Your task to perform on an android device: Clear all items from cart on target.com. Search for jbl charge 4 on target.com, select the first entry, add it to the cart, then select checkout. Image 0: 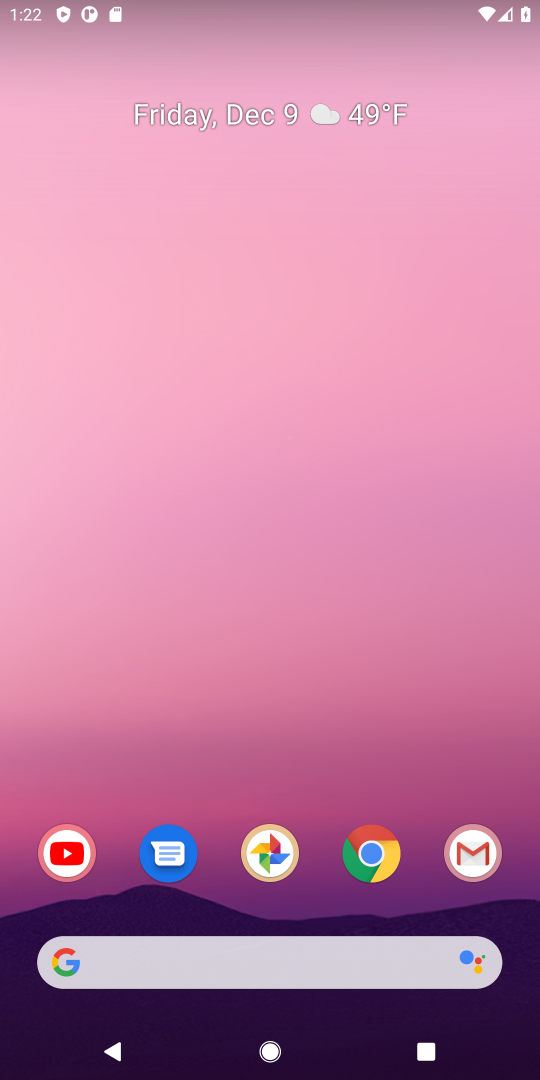
Step 0: drag from (236, 877) to (227, 371)
Your task to perform on an android device: Clear all items from cart on target.com. Search for jbl charge 4 on target.com, select the first entry, add it to the cart, then select checkout. Image 1: 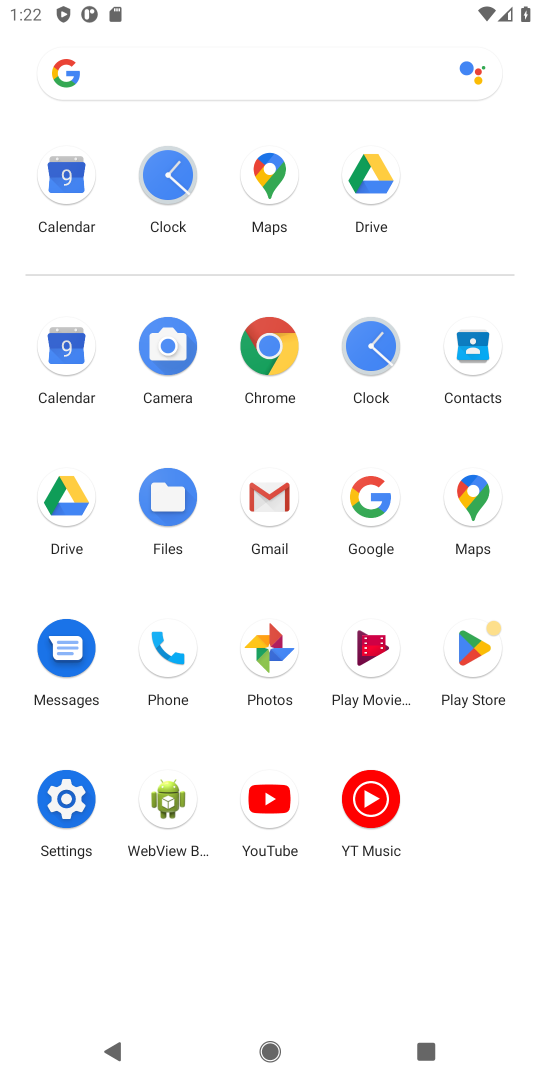
Step 1: click (383, 489)
Your task to perform on an android device: Clear all items from cart on target.com. Search for jbl charge 4 on target.com, select the first entry, add it to the cart, then select checkout. Image 2: 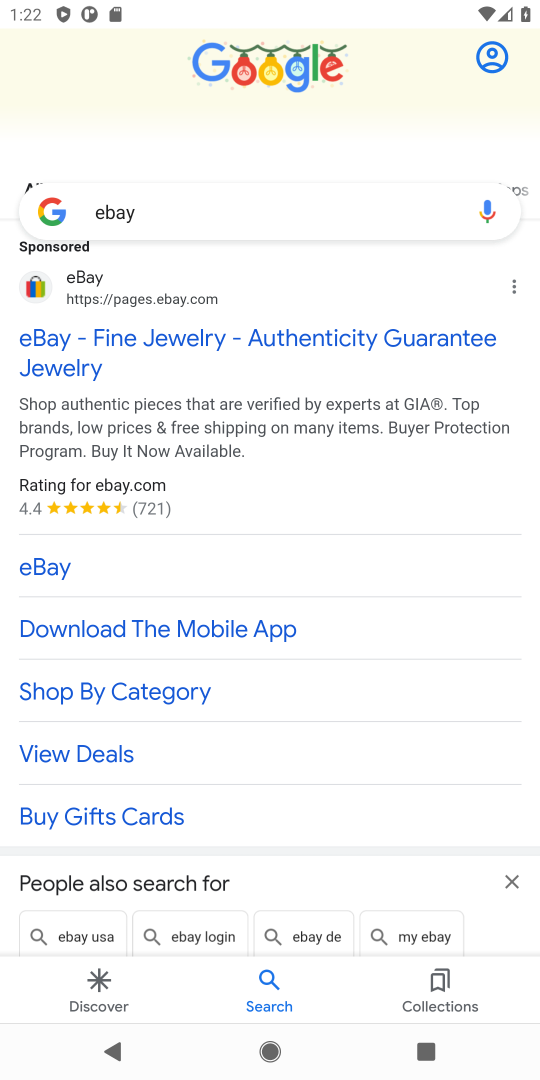
Step 2: click (132, 218)
Your task to perform on an android device: Clear all items from cart on target.com. Search for jbl charge 4 on target.com, select the first entry, add it to the cart, then select checkout. Image 3: 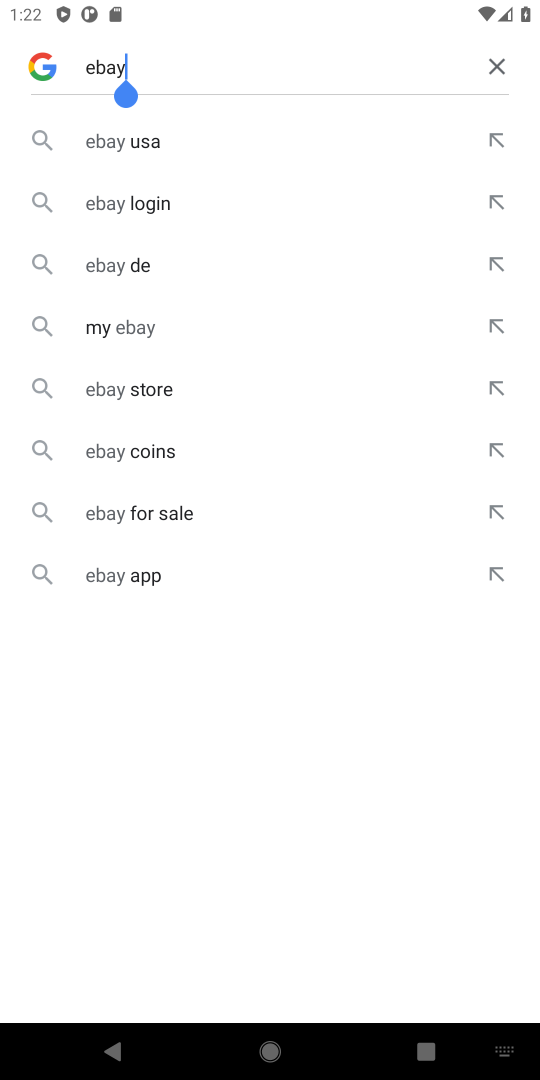
Step 3: click (505, 59)
Your task to perform on an android device: Clear all items from cart on target.com. Search for jbl charge 4 on target.com, select the first entry, add it to the cart, then select checkout. Image 4: 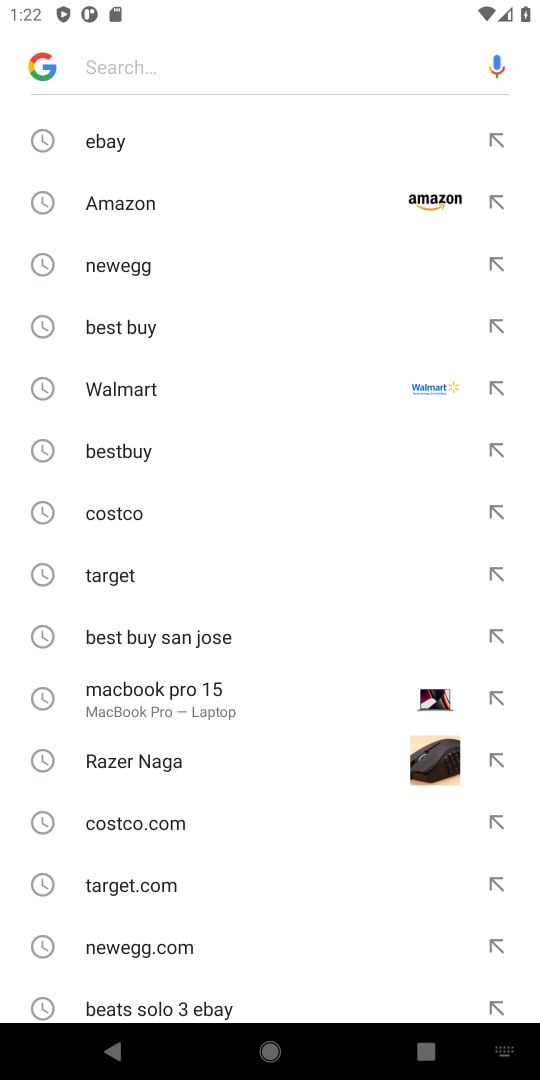
Step 4: click (100, 564)
Your task to perform on an android device: Clear all items from cart on target.com. Search for jbl charge 4 on target.com, select the first entry, add it to the cart, then select checkout. Image 5: 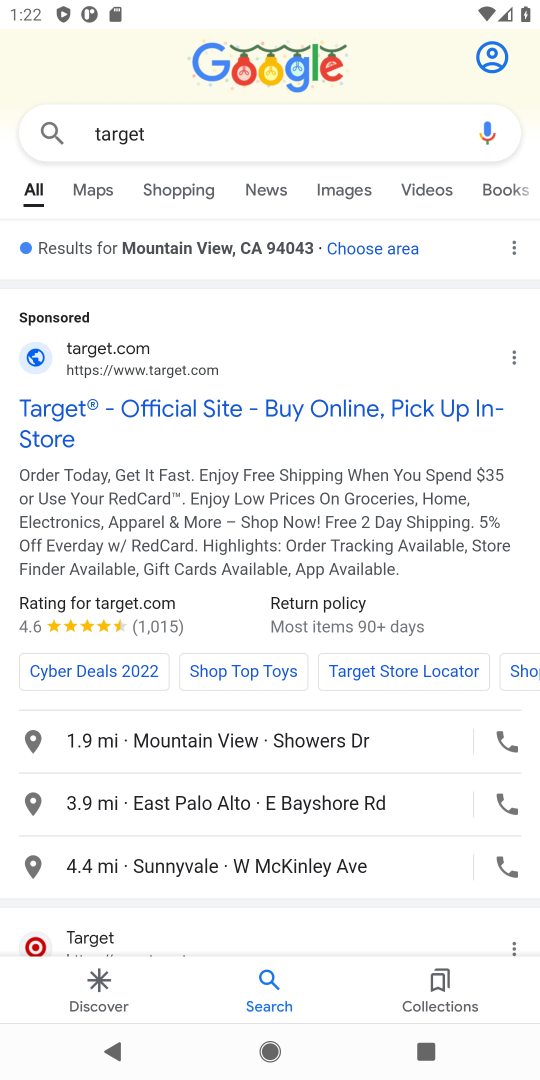
Step 5: click (121, 409)
Your task to perform on an android device: Clear all items from cart on target.com. Search for jbl charge 4 on target.com, select the first entry, add it to the cart, then select checkout. Image 6: 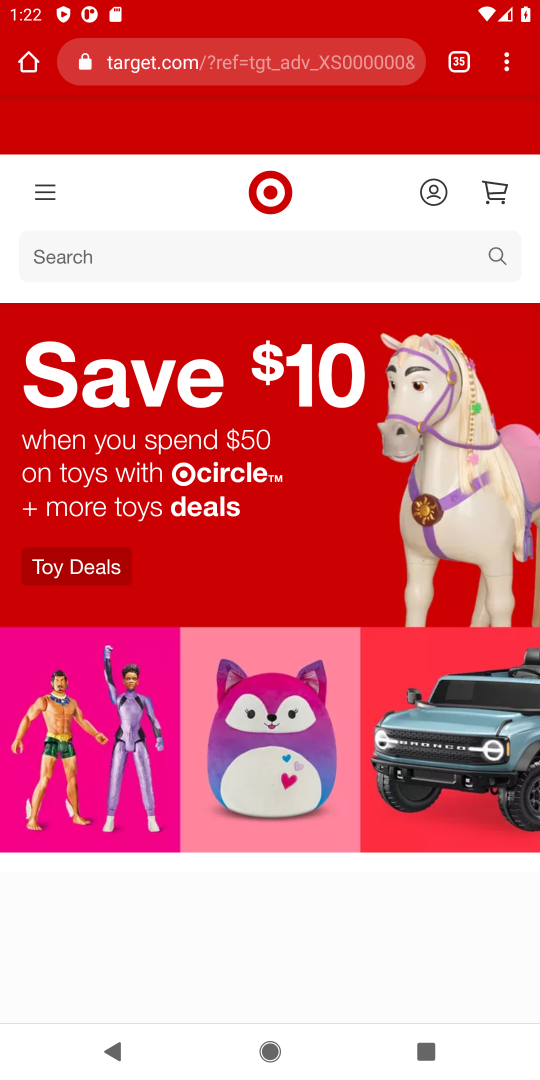
Step 6: click (484, 188)
Your task to perform on an android device: Clear all items from cart on target.com. Search for jbl charge 4 on target.com, select the first entry, add it to the cart, then select checkout. Image 7: 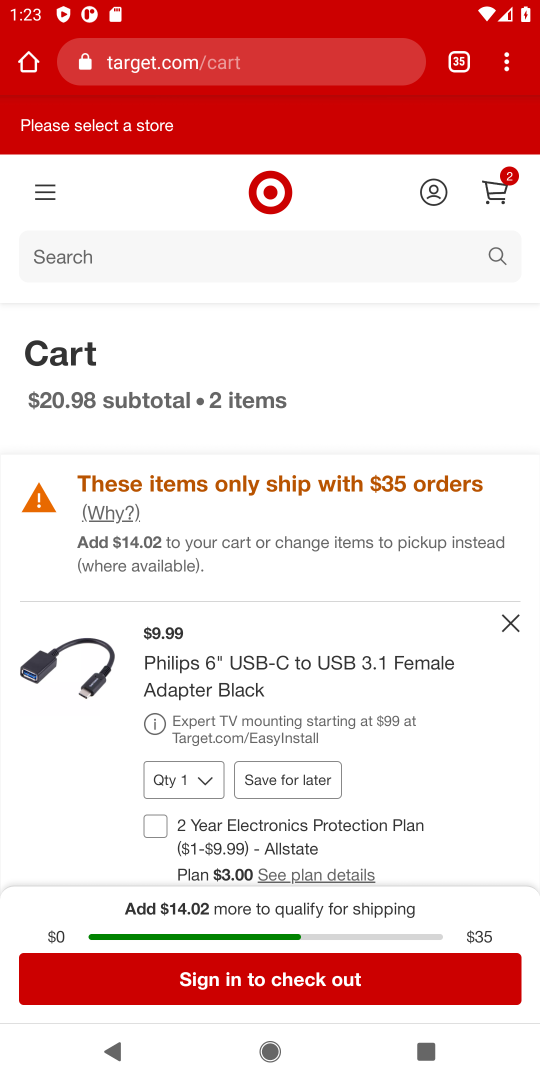
Step 7: drag from (417, 792) to (456, 472)
Your task to perform on an android device: Clear all items from cart on target.com. Search for jbl charge 4 on target.com, select the first entry, add it to the cart, then select checkout. Image 8: 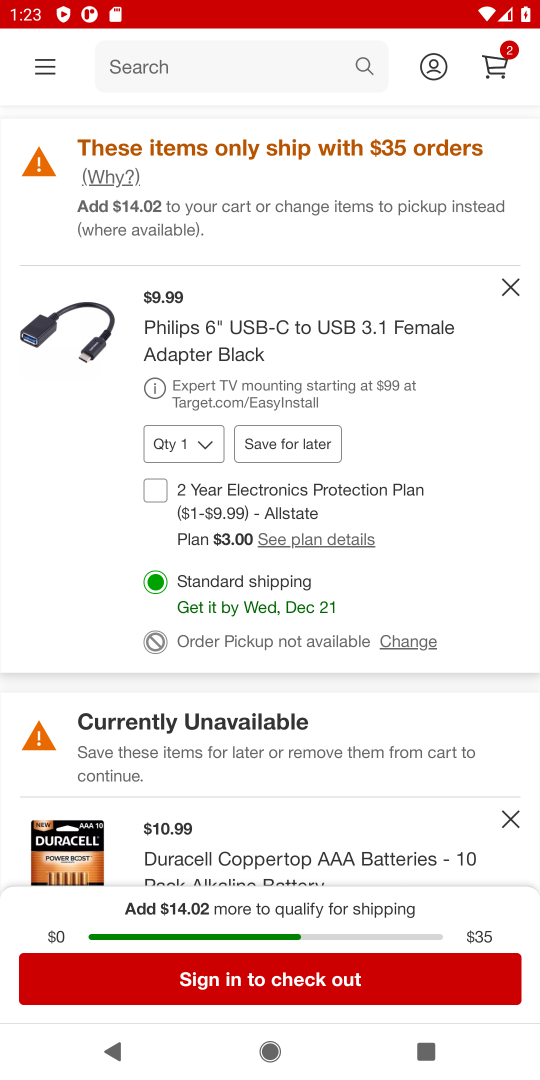
Step 8: click (509, 282)
Your task to perform on an android device: Clear all items from cart on target.com. Search for jbl charge 4 on target.com, select the first entry, add it to the cart, then select checkout. Image 9: 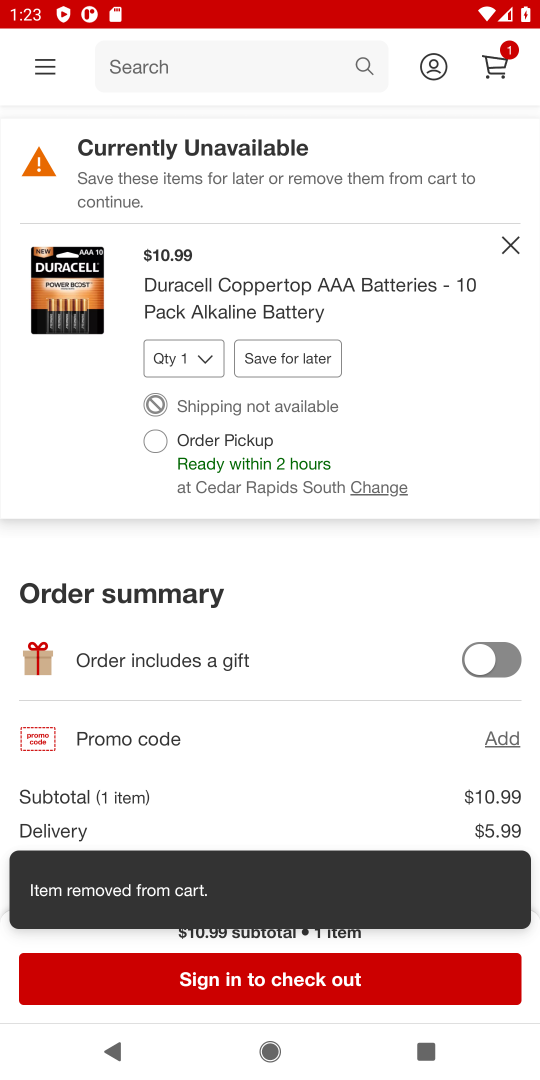
Step 9: click (509, 236)
Your task to perform on an android device: Clear all items from cart on target.com. Search for jbl charge 4 on target.com, select the first entry, add it to the cart, then select checkout. Image 10: 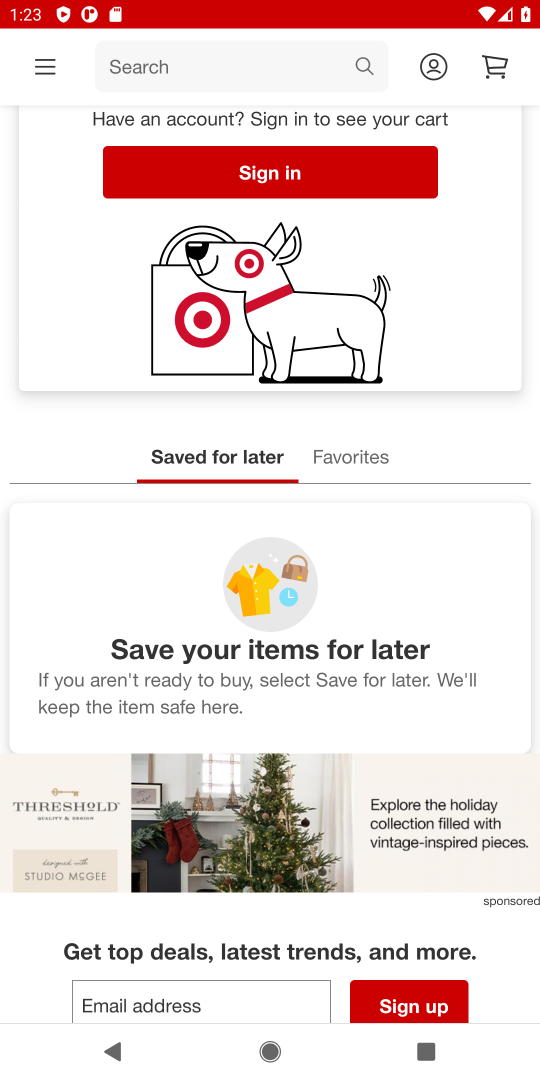
Step 10: click (356, 66)
Your task to perform on an android device: Clear all items from cart on target.com. Search for jbl charge 4 on target.com, select the first entry, add it to the cart, then select checkout. Image 11: 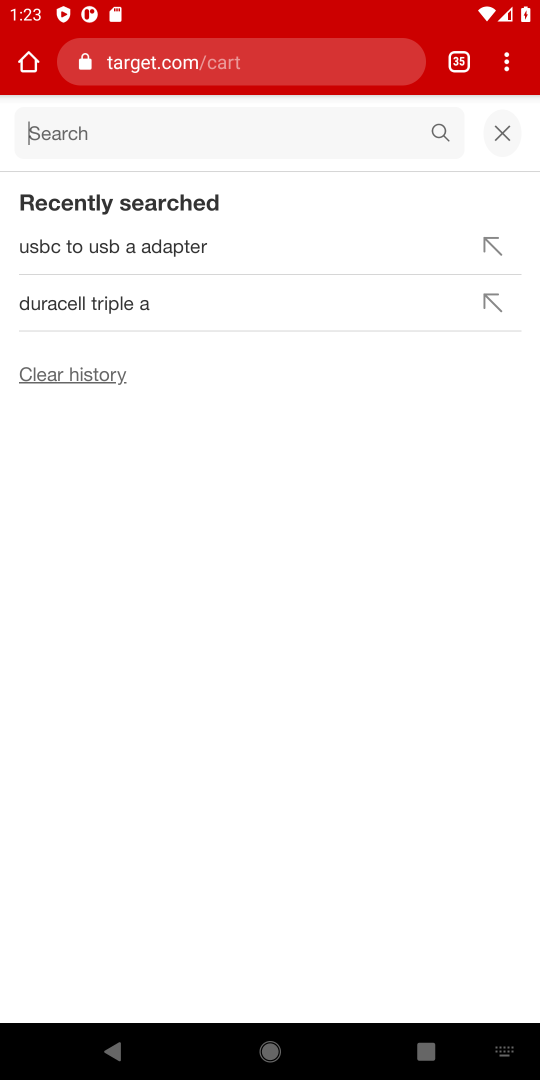
Step 11: type "jbl charge 4"
Your task to perform on an android device: Clear all items from cart on target.com. Search for jbl charge 4 on target.com, select the first entry, add it to the cart, then select checkout. Image 12: 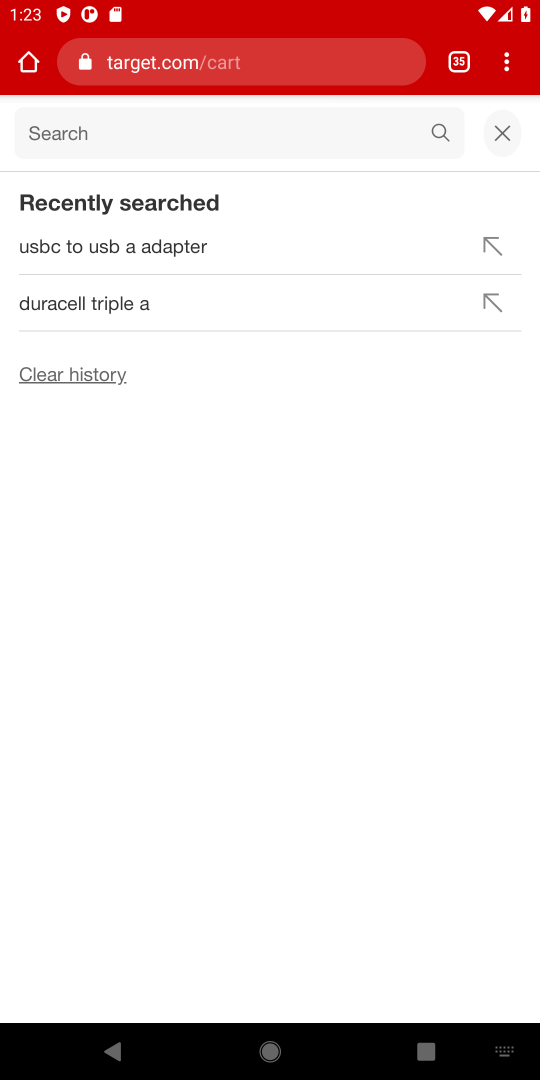
Step 12: click (443, 137)
Your task to perform on an android device: Clear all items from cart on target.com. Search for jbl charge 4 on target.com, select the first entry, add it to the cart, then select checkout. Image 13: 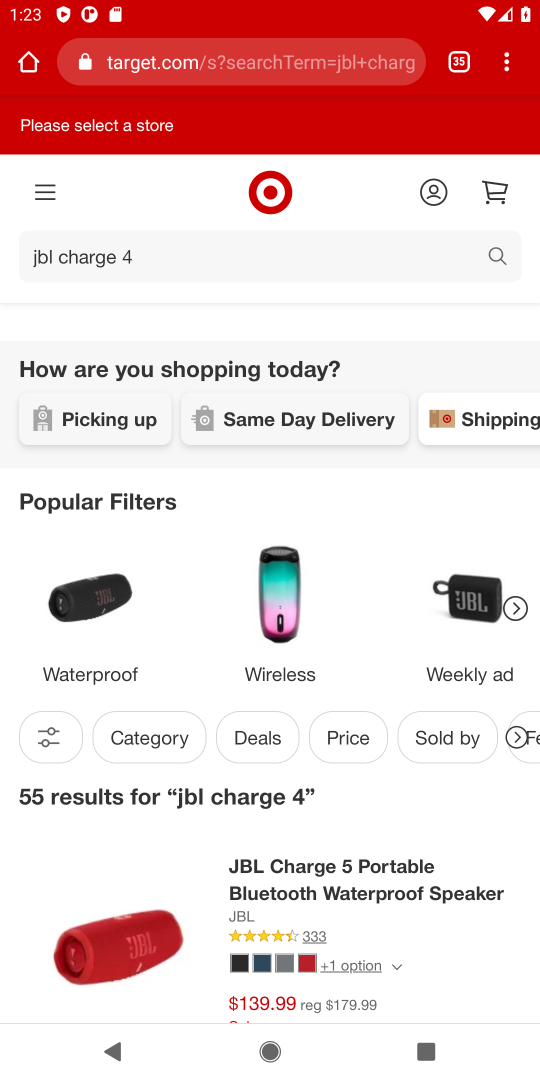
Step 13: drag from (378, 933) to (378, 514)
Your task to perform on an android device: Clear all items from cart on target.com. Search for jbl charge 4 on target.com, select the first entry, add it to the cart, then select checkout. Image 14: 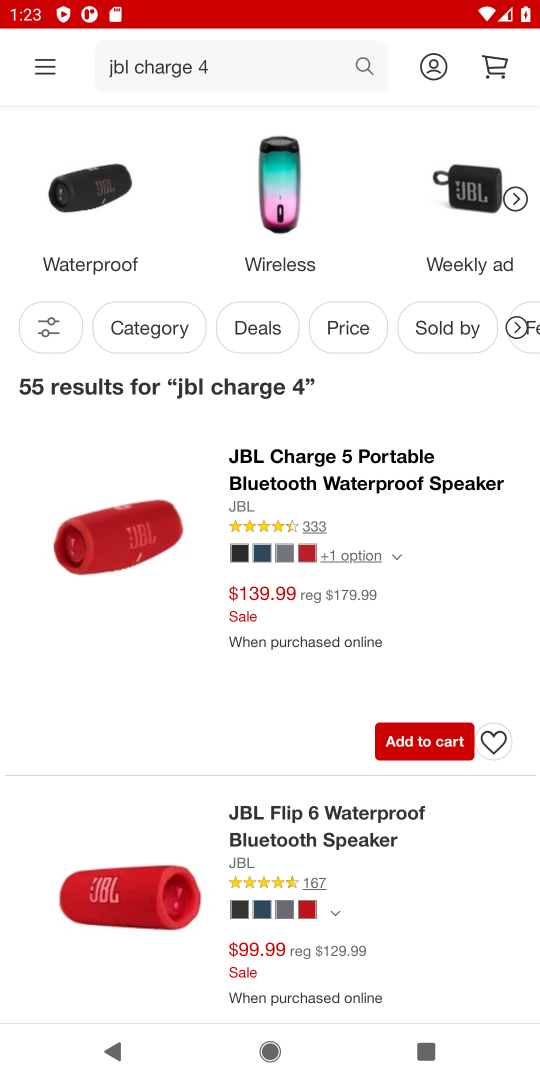
Step 14: click (440, 738)
Your task to perform on an android device: Clear all items from cart on target.com. Search for jbl charge 4 on target.com, select the first entry, add it to the cart, then select checkout. Image 15: 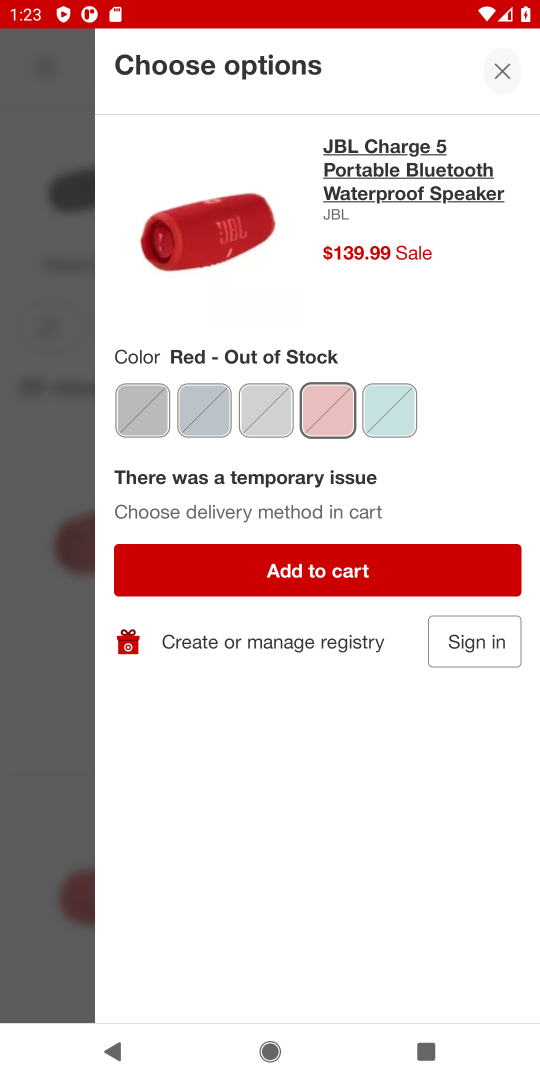
Step 15: click (493, 73)
Your task to perform on an android device: Clear all items from cart on target.com. Search for jbl charge 4 on target.com, select the first entry, add it to the cart, then select checkout. Image 16: 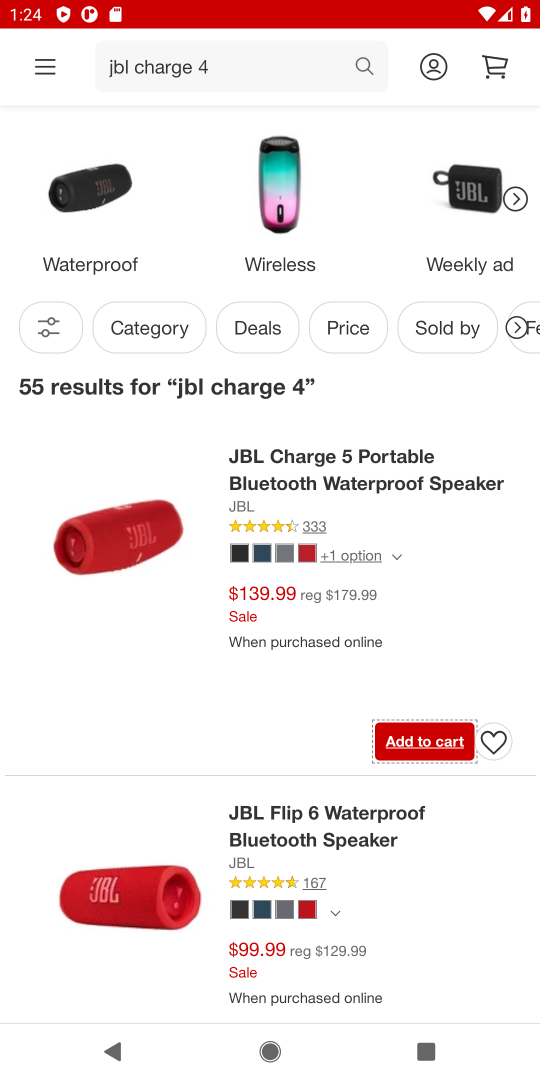
Step 16: click (456, 741)
Your task to perform on an android device: Clear all items from cart on target.com. Search for jbl charge 4 on target.com, select the first entry, add it to the cart, then select checkout. Image 17: 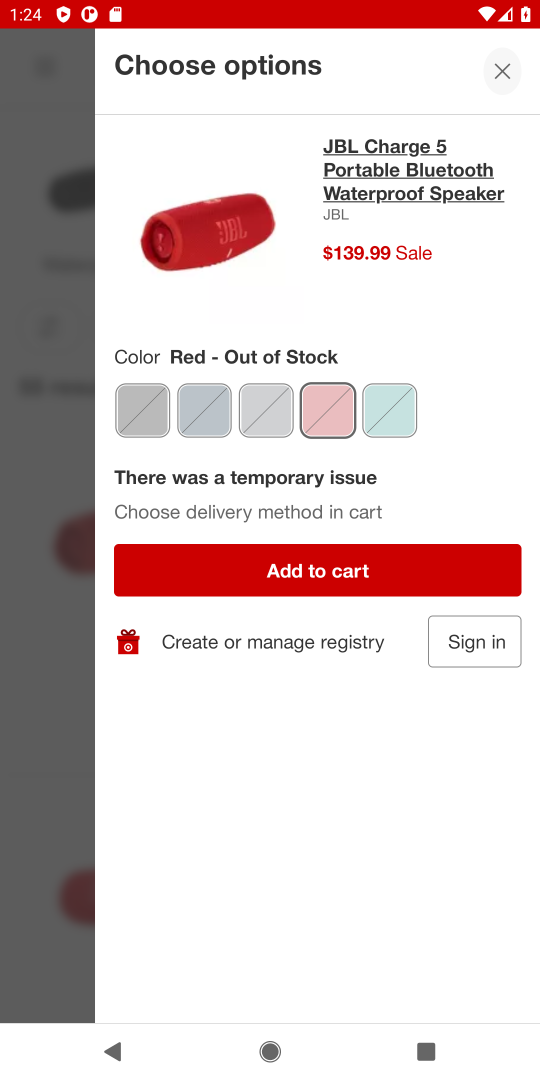
Step 17: click (351, 572)
Your task to perform on an android device: Clear all items from cart on target.com. Search for jbl charge 4 on target.com, select the first entry, add it to the cart, then select checkout. Image 18: 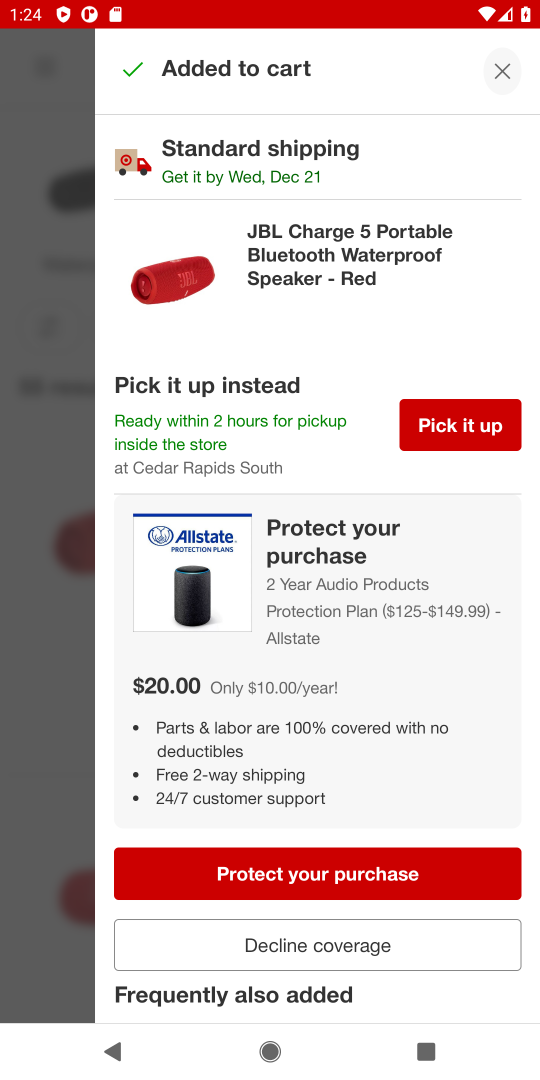
Step 18: click (495, 71)
Your task to perform on an android device: Clear all items from cart on target.com. Search for jbl charge 4 on target.com, select the first entry, add it to the cart, then select checkout. Image 19: 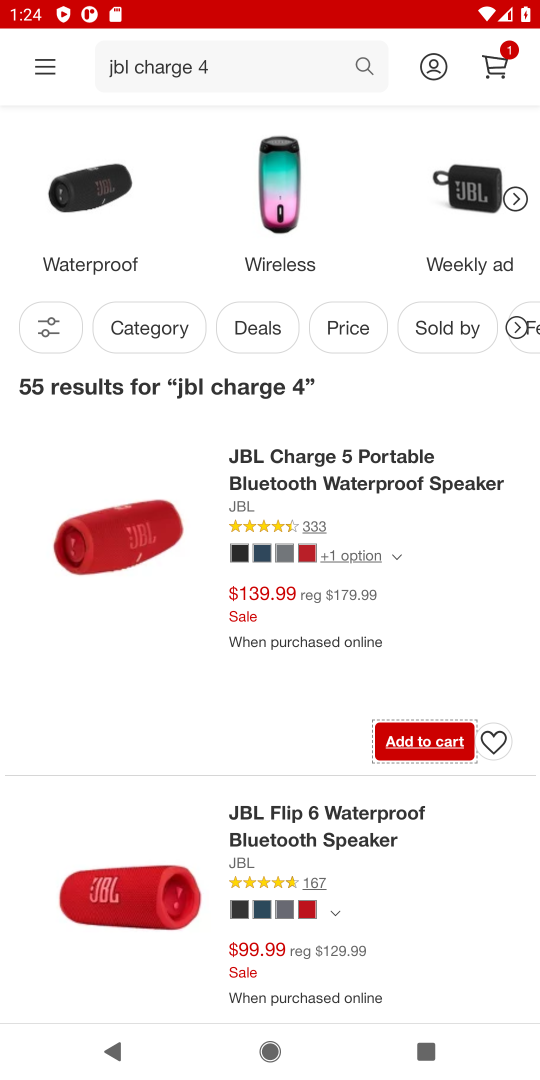
Step 19: click (498, 68)
Your task to perform on an android device: Clear all items from cart on target.com. Search for jbl charge 4 on target.com, select the first entry, add it to the cart, then select checkout. Image 20: 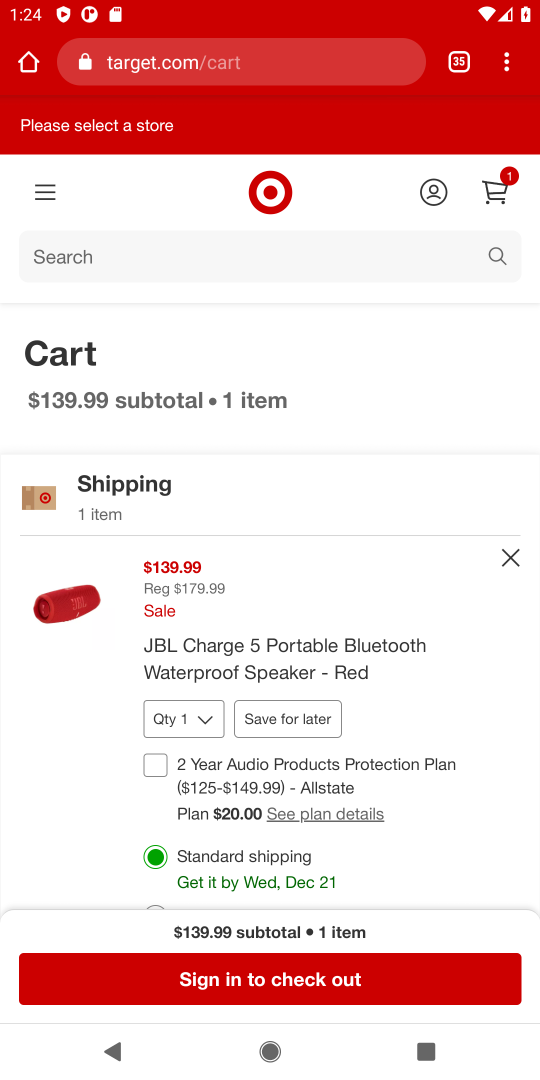
Step 20: click (289, 988)
Your task to perform on an android device: Clear all items from cart on target.com. Search for jbl charge 4 on target.com, select the first entry, add it to the cart, then select checkout. Image 21: 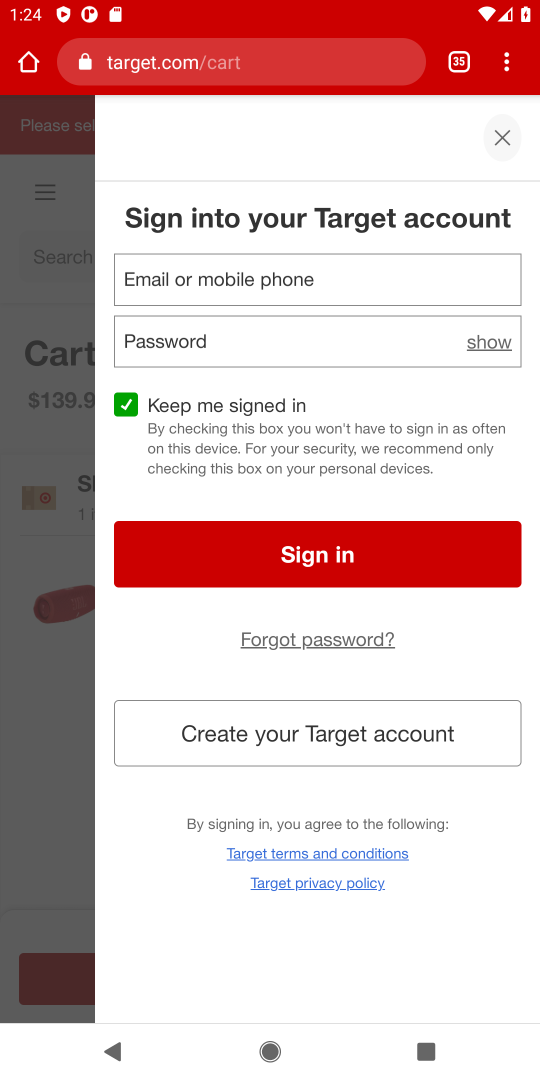
Step 21: task complete